Your task to perform on an android device: Go to Maps Image 0: 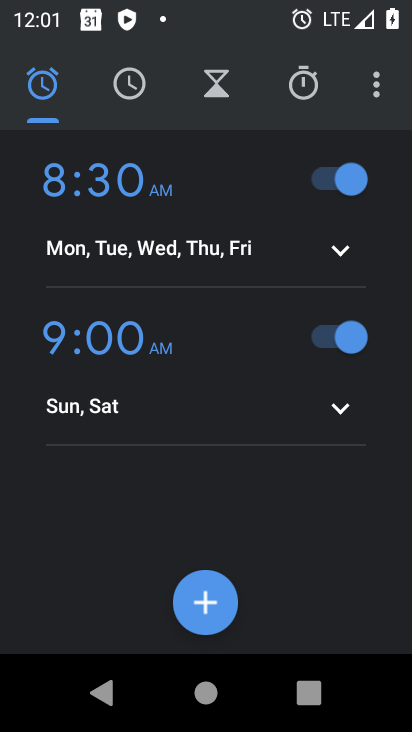
Step 0: press back button
Your task to perform on an android device: Go to Maps Image 1: 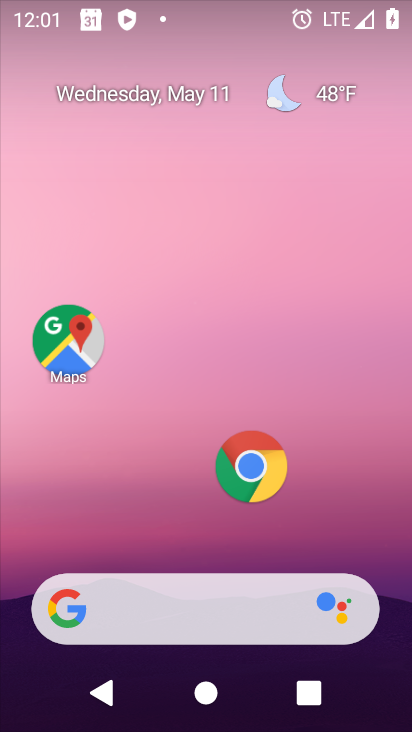
Step 1: click (64, 330)
Your task to perform on an android device: Go to Maps Image 2: 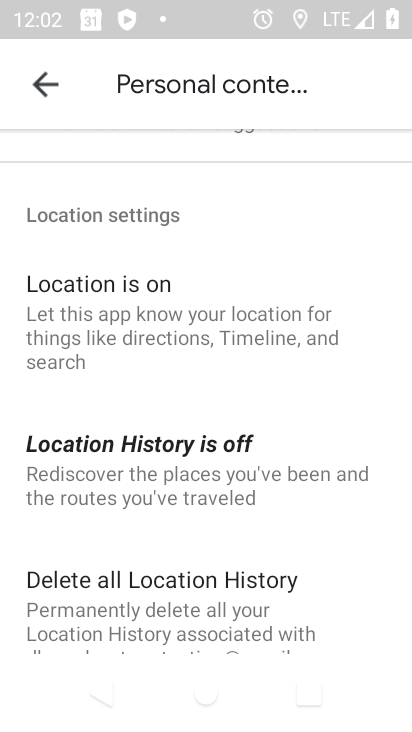
Step 2: task complete